Your task to perform on an android device: Open Yahoo.com Image 0: 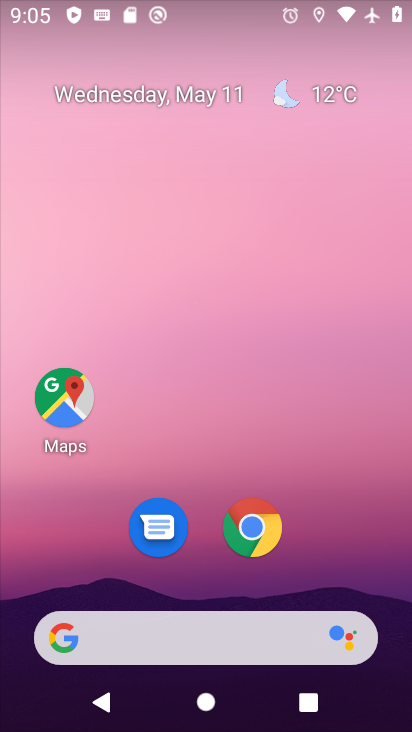
Step 0: click (251, 530)
Your task to perform on an android device: Open Yahoo.com Image 1: 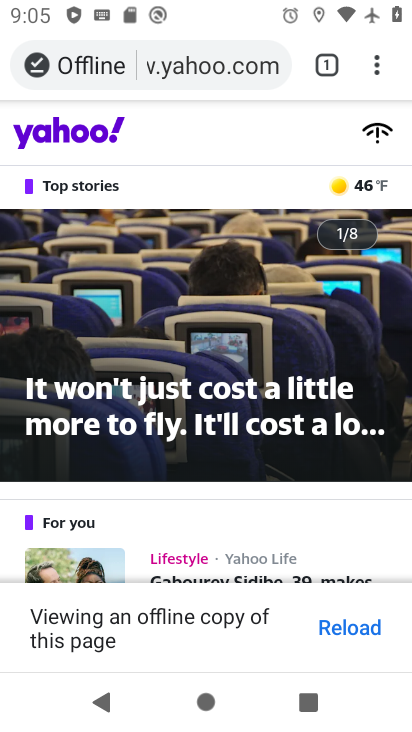
Step 1: task complete